Your task to perform on an android device: add a contact Image 0: 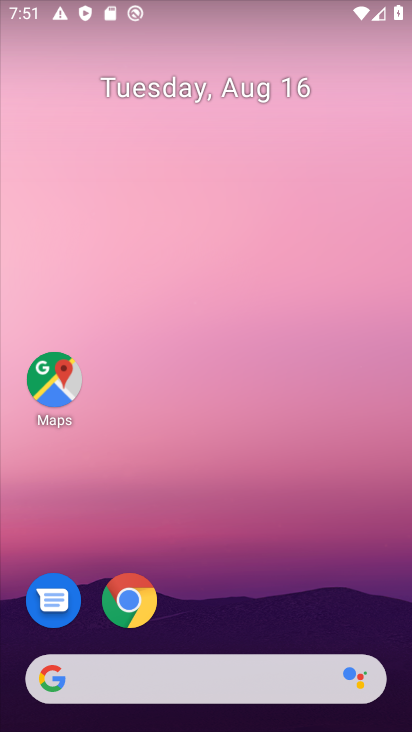
Step 0: drag from (272, 596) to (371, 85)
Your task to perform on an android device: add a contact Image 1: 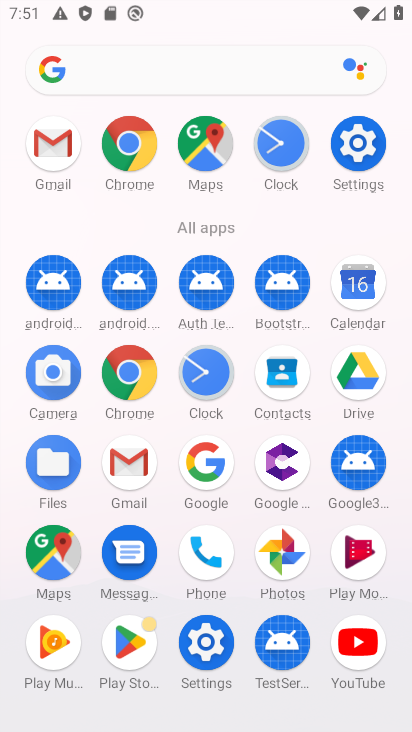
Step 1: click (192, 558)
Your task to perform on an android device: add a contact Image 2: 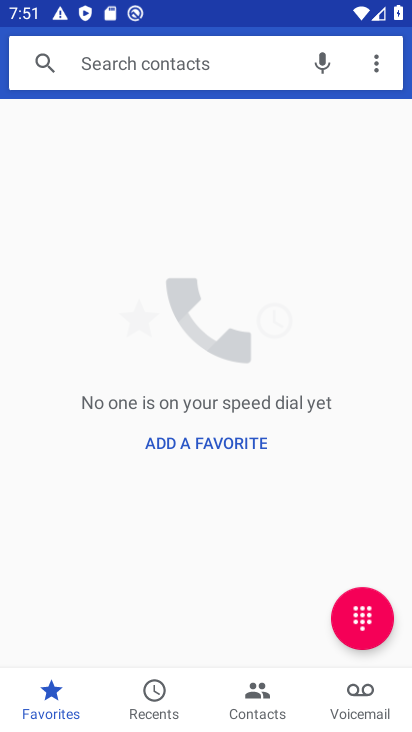
Step 2: click (253, 682)
Your task to perform on an android device: add a contact Image 3: 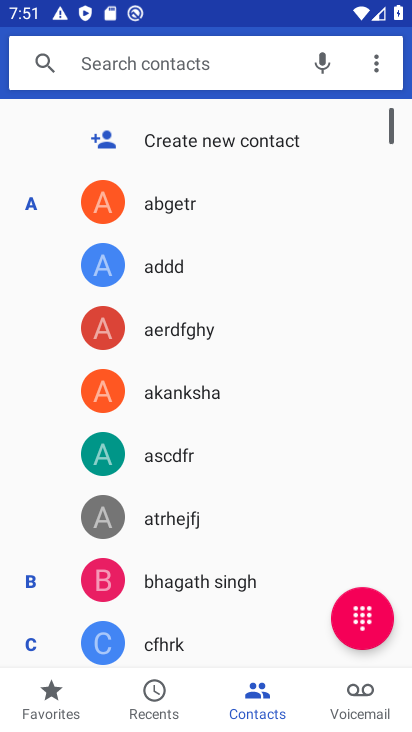
Step 3: click (215, 142)
Your task to perform on an android device: add a contact Image 4: 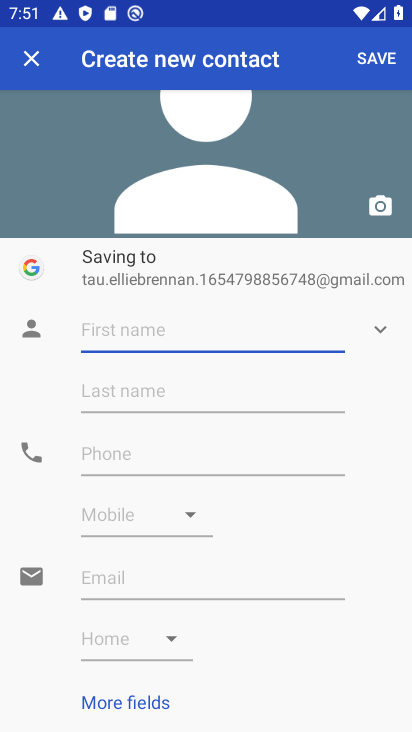
Step 4: type "hgfgh"
Your task to perform on an android device: add a contact Image 5: 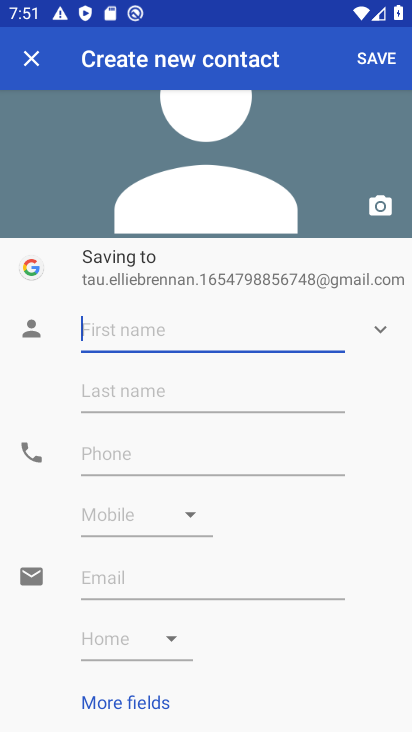
Step 5: click (100, 465)
Your task to perform on an android device: add a contact Image 6: 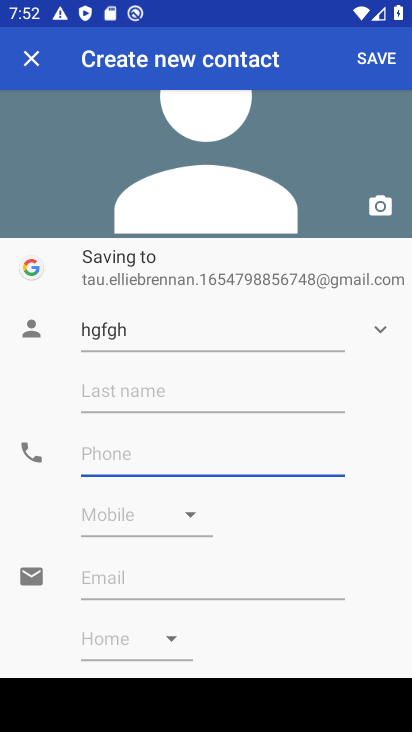
Step 6: type "5455678"
Your task to perform on an android device: add a contact Image 7: 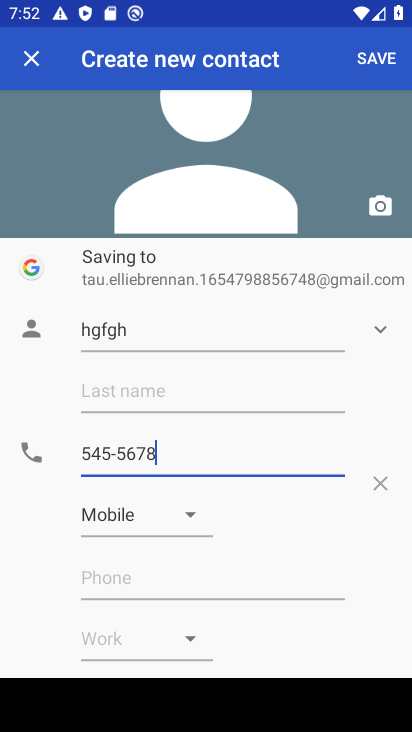
Step 7: click (373, 63)
Your task to perform on an android device: add a contact Image 8: 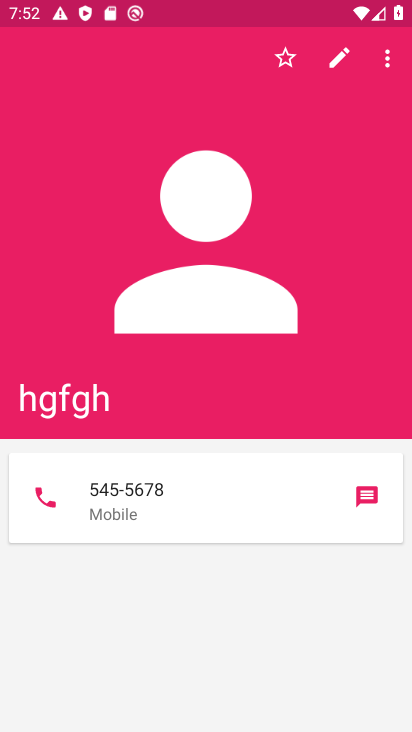
Step 8: task complete